Your task to perform on an android device: Go to notification settings Image 0: 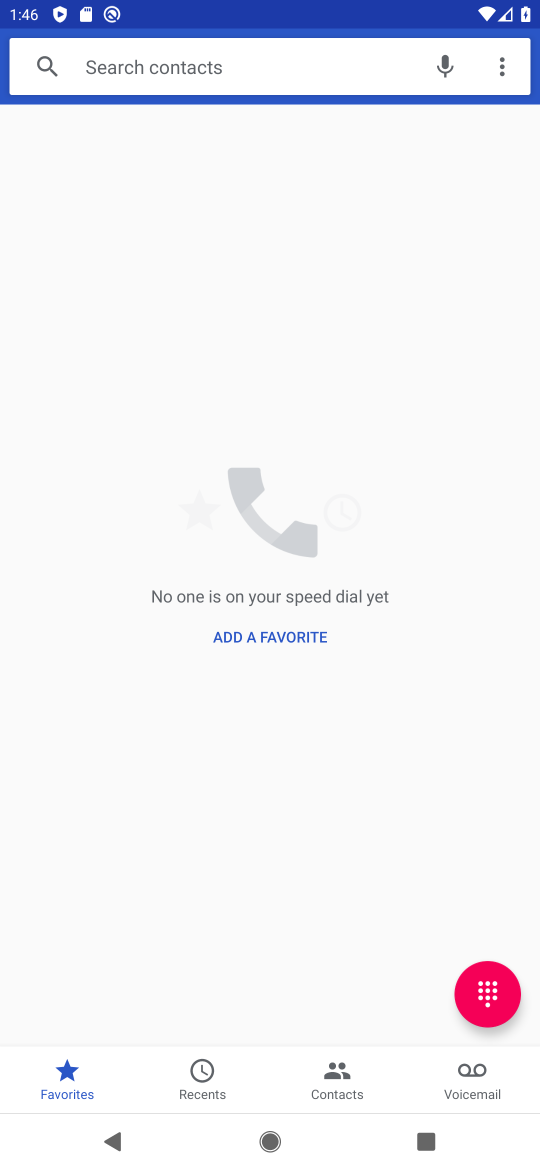
Step 0: press back button
Your task to perform on an android device: Go to notification settings Image 1: 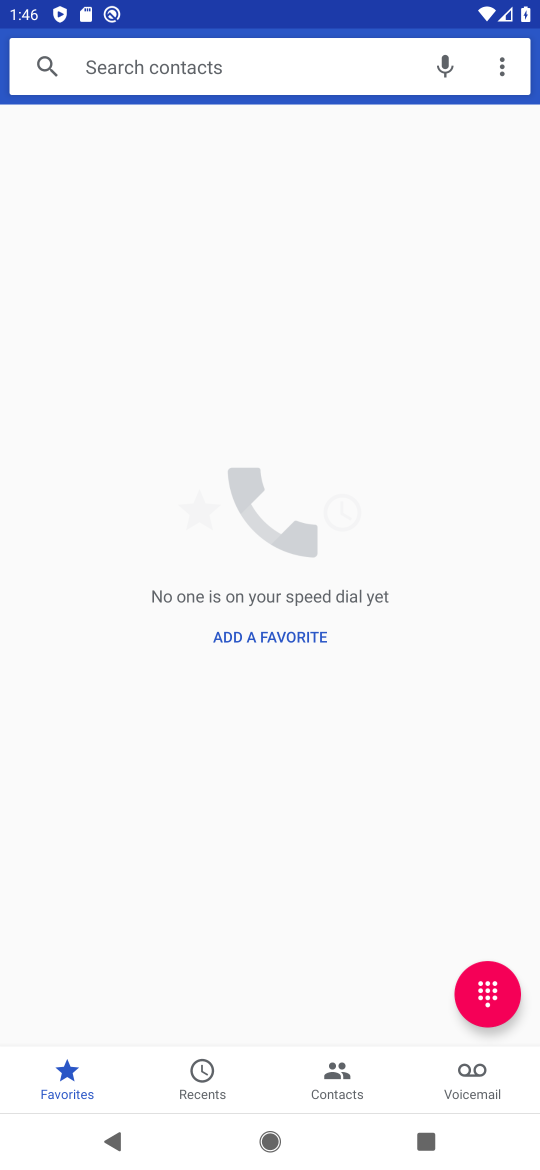
Step 1: press home button
Your task to perform on an android device: Go to notification settings Image 2: 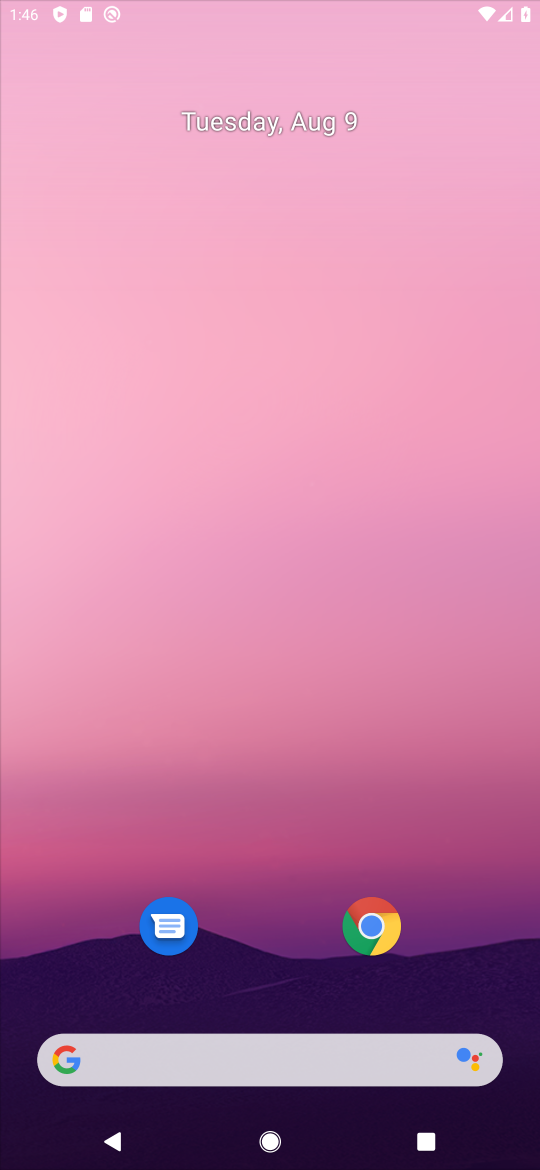
Step 2: press home button
Your task to perform on an android device: Go to notification settings Image 3: 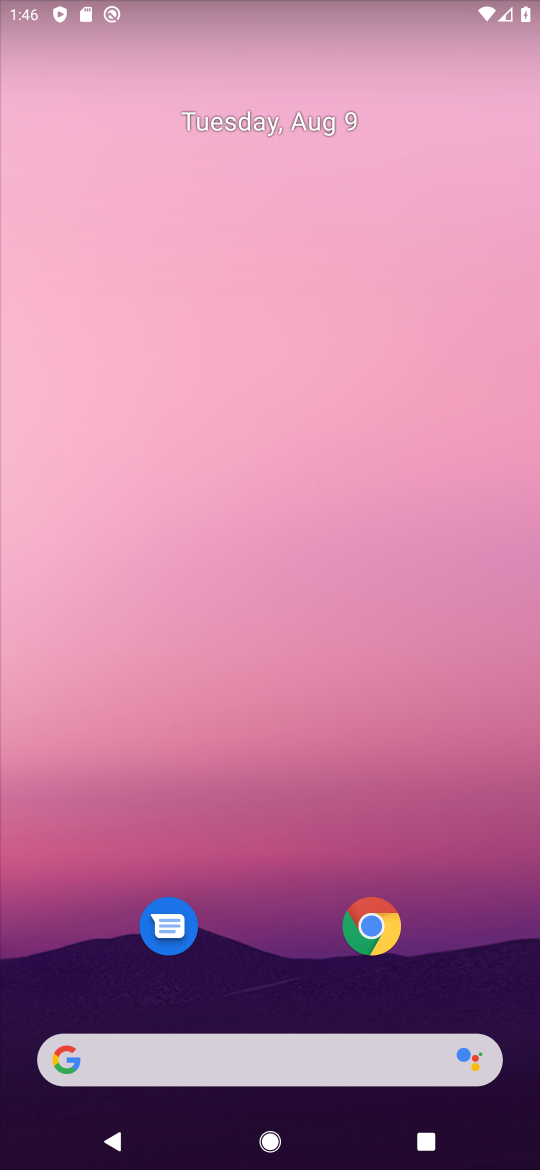
Step 3: drag from (283, 893) to (470, 206)
Your task to perform on an android device: Go to notification settings Image 4: 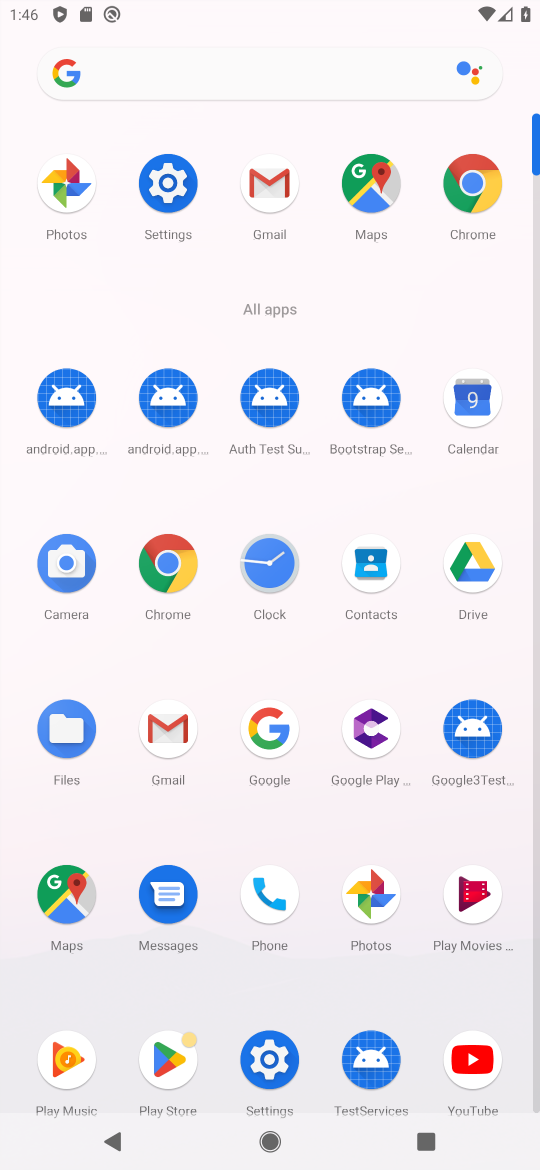
Step 4: click (275, 1074)
Your task to perform on an android device: Go to notification settings Image 5: 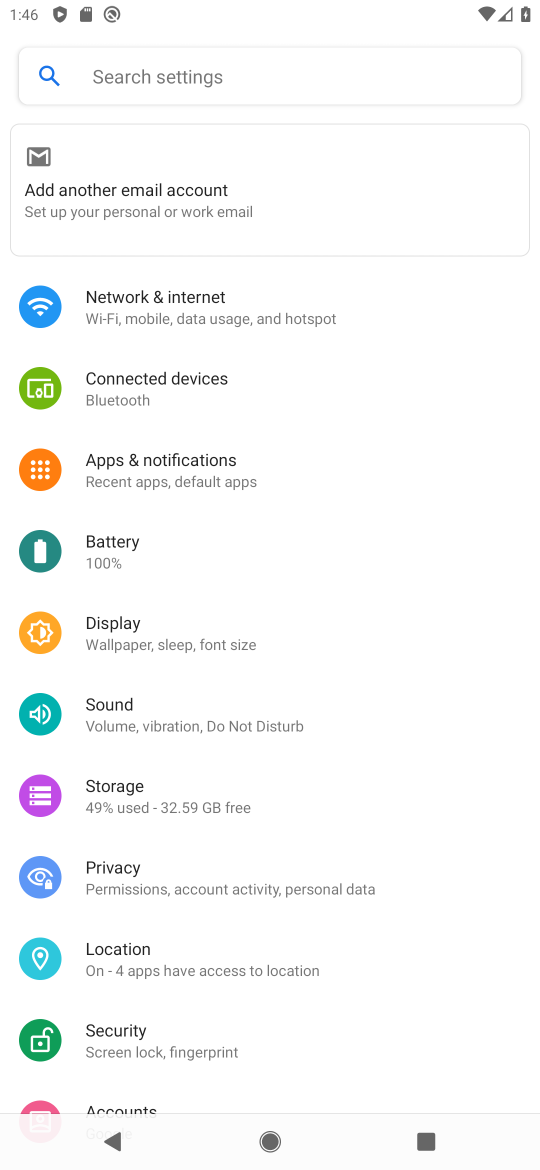
Step 5: drag from (161, 977) to (174, 587)
Your task to perform on an android device: Go to notification settings Image 6: 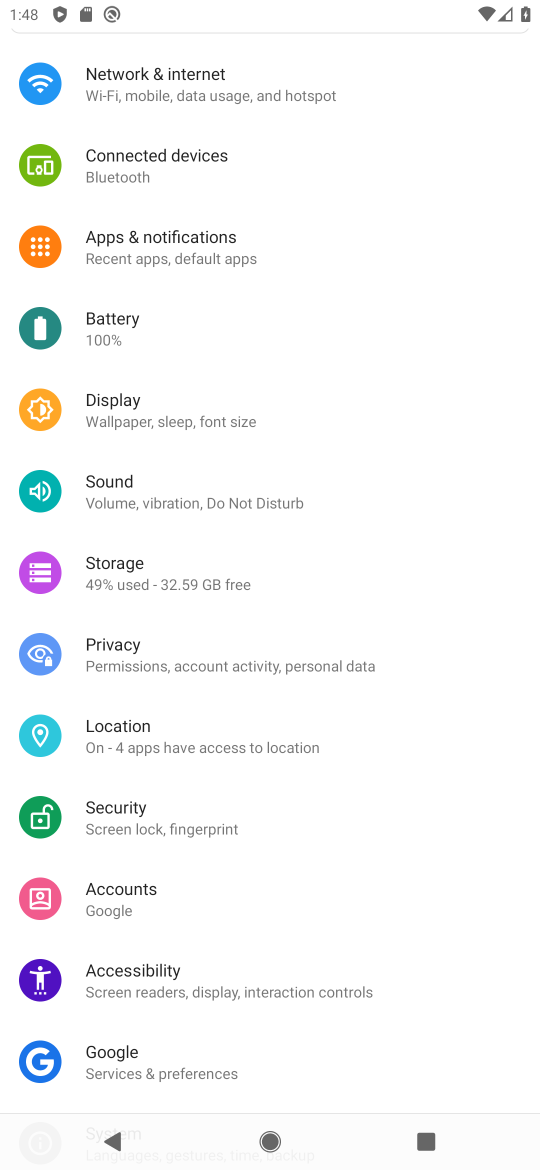
Step 6: click (226, 241)
Your task to perform on an android device: Go to notification settings Image 7: 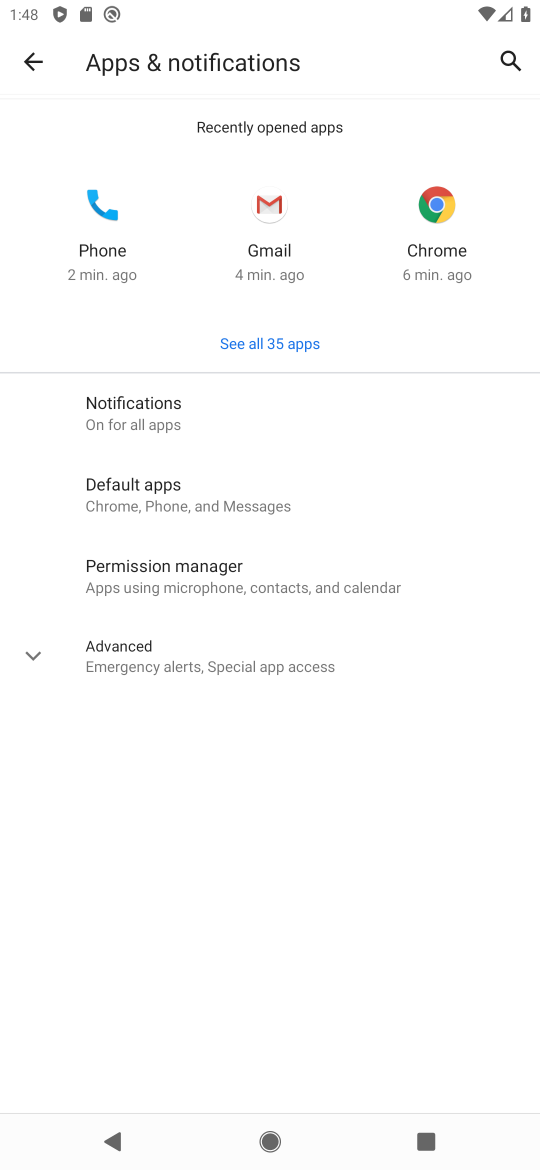
Step 7: click (152, 435)
Your task to perform on an android device: Go to notification settings Image 8: 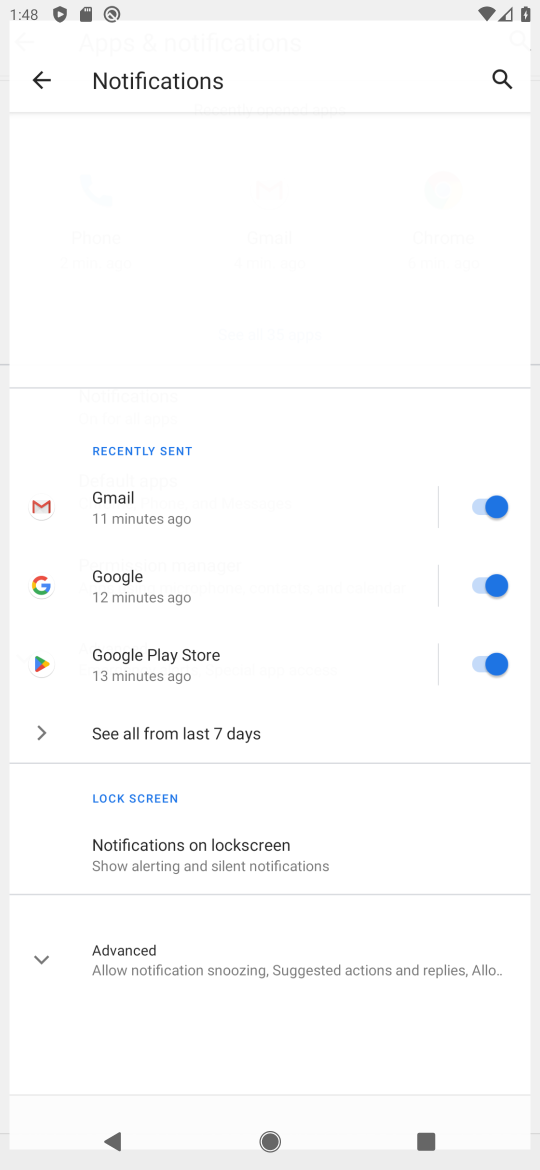
Step 8: task complete